Your task to perform on an android device: Go to ESPN.com Image 0: 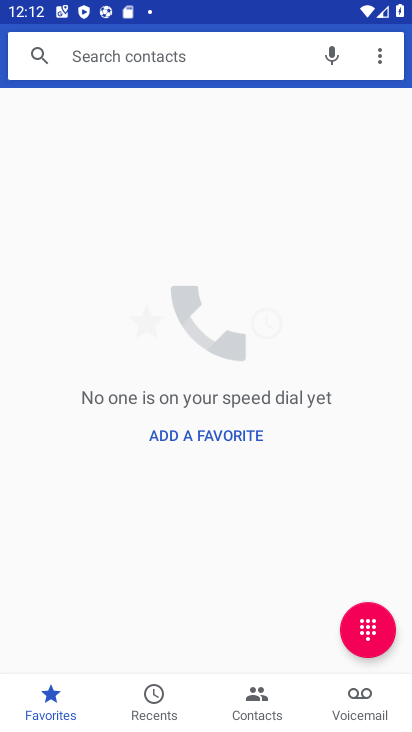
Step 0: press home button
Your task to perform on an android device: Go to ESPN.com Image 1: 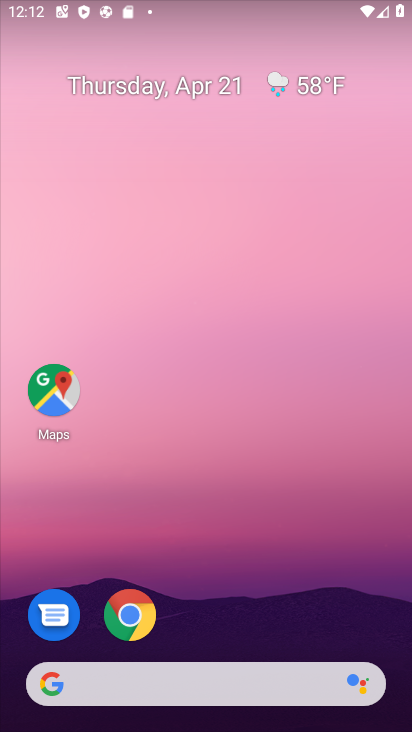
Step 1: drag from (385, 641) to (377, 219)
Your task to perform on an android device: Go to ESPN.com Image 2: 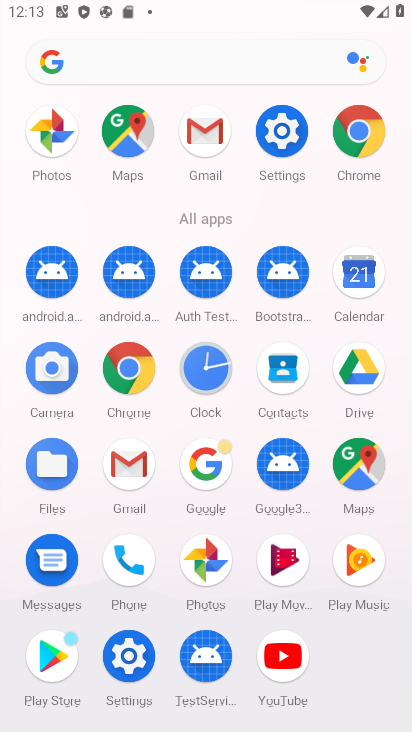
Step 2: click (134, 376)
Your task to perform on an android device: Go to ESPN.com Image 3: 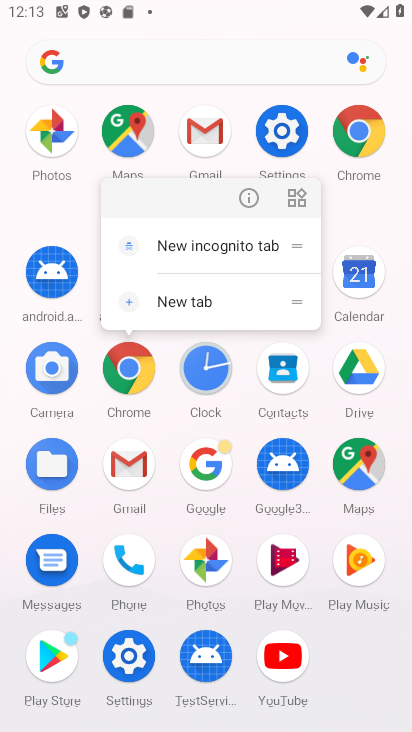
Step 3: click (133, 382)
Your task to perform on an android device: Go to ESPN.com Image 4: 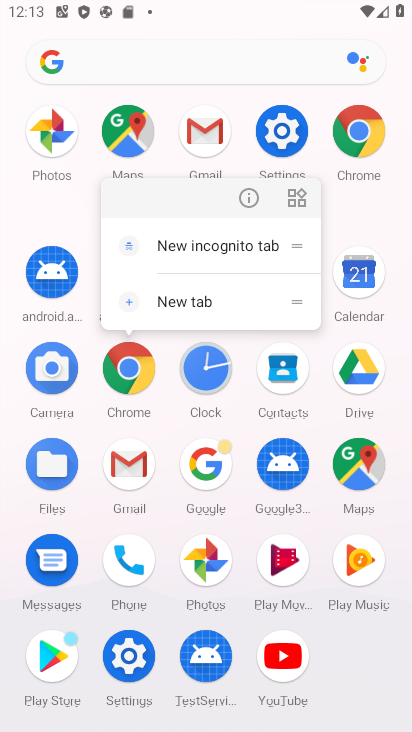
Step 4: click (134, 384)
Your task to perform on an android device: Go to ESPN.com Image 5: 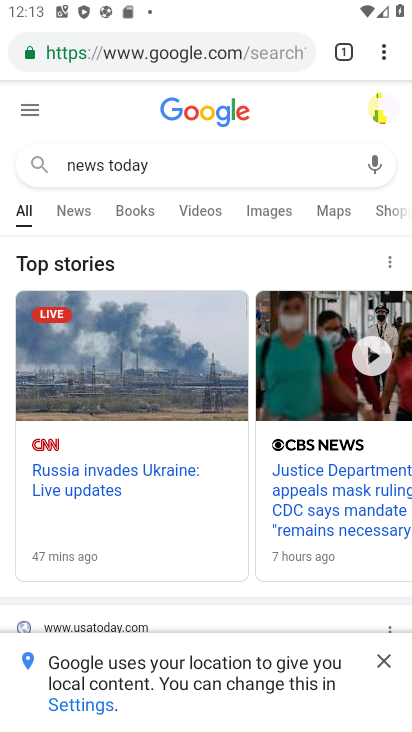
Step 5: click (195, 172)
Your task to perform on an android device: Go to ESPN.com Image 6: 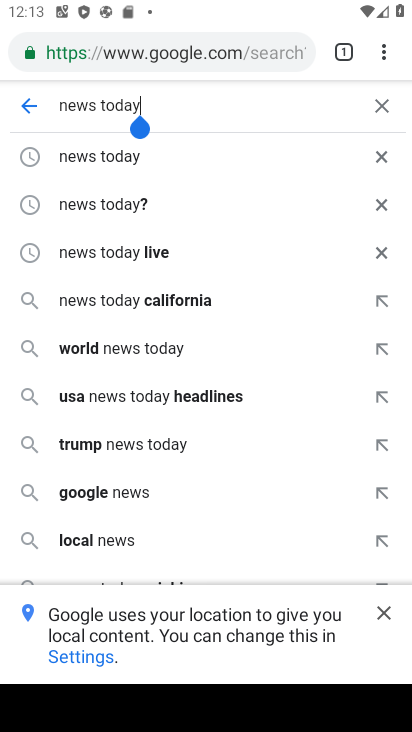
Step 6: click (377, 108)
Your task to perform on an android device: Go to ESPN.com Image 7: 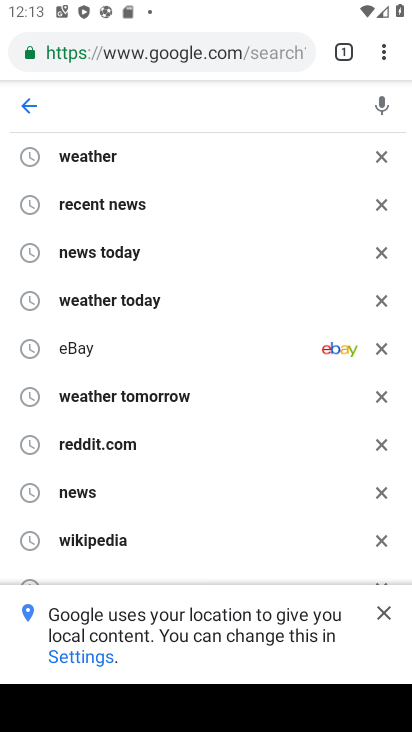
Step 7: type "espn.com"
Your task to perform on an android device: Go to ESPN.com Image 8: 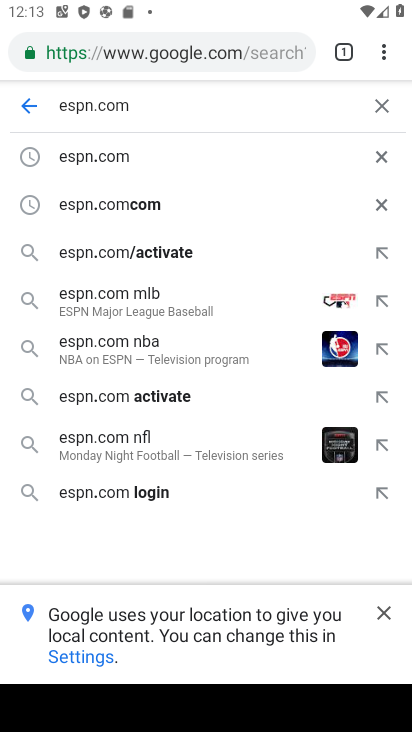
Step 8: click (118, 155)
Your task to perform on an android device: Go to ESPN.com Image 9: 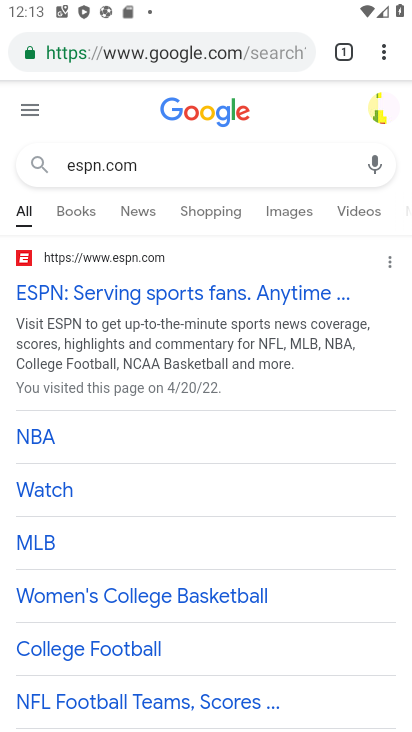
Step 9: click (130, 292)
Your task to perform on an android device: Go to ESPN.com Image 10: 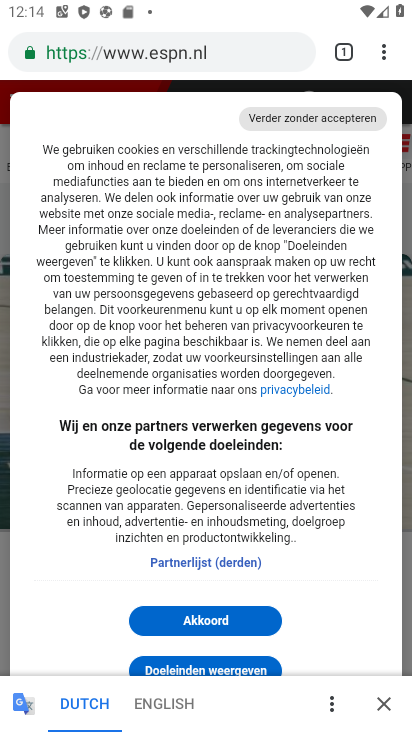
Step 10: task complete